Your task to perform on an android device: turn on wifi Image 0: 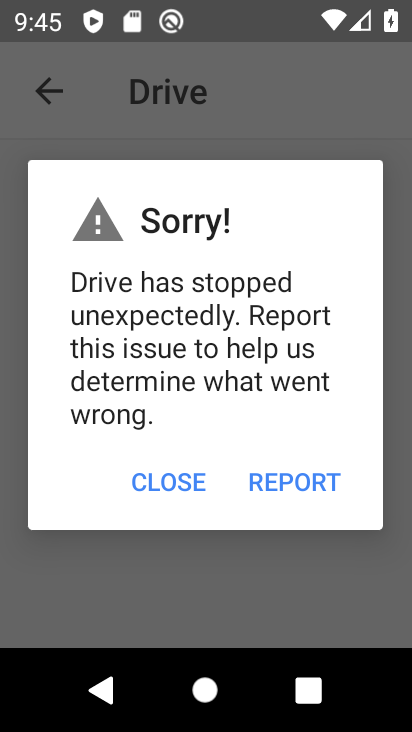
Step 0: press home button
Your task to perform on an android device: turn on wifi Image 1: 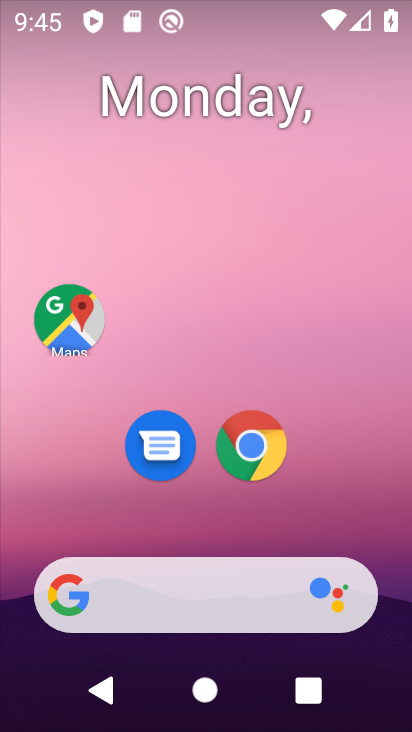
Step 1: drag from (119, 522) to (246, 56)
Your task to perform on an android device: turn on wifi Image 2: 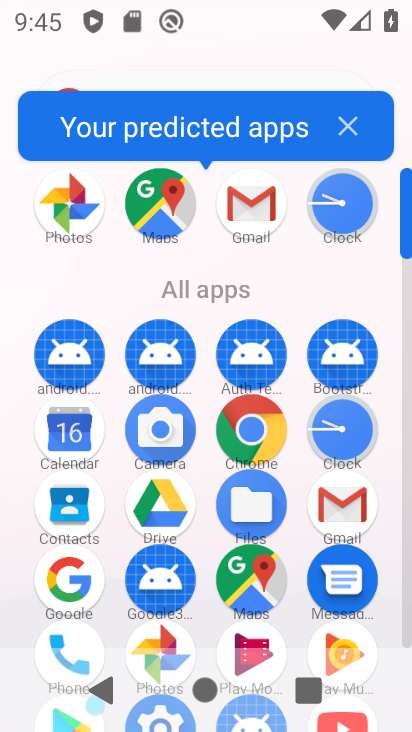
Step 2: drag from (171, 634) to (335, 190)
Your task to perform on an android device: turn on wifi Image 3: 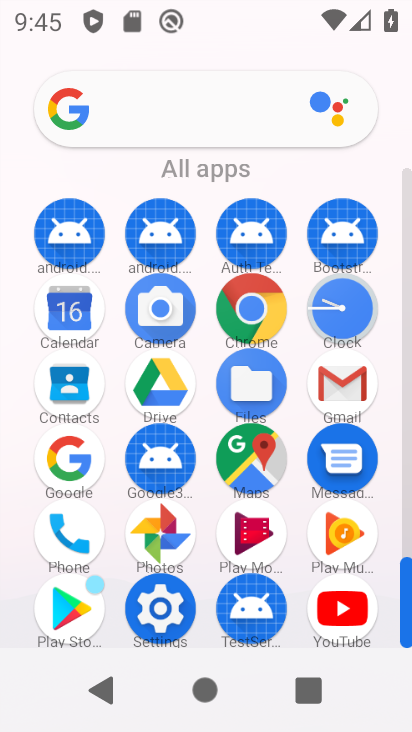
Step 3: click (155, 620)
Your task to perform on an android device: turn on wifi Image 4: 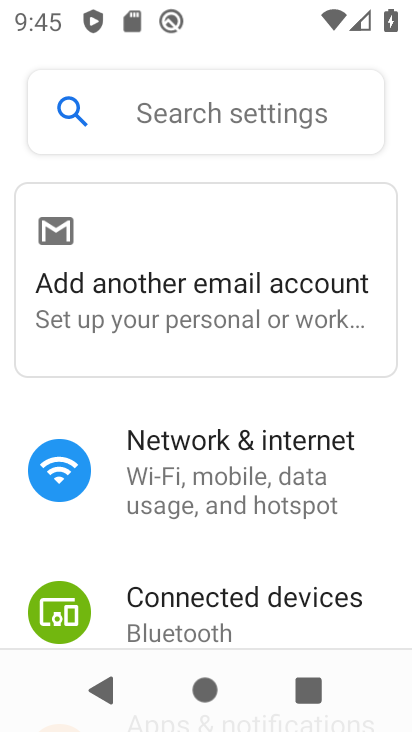
Step 4: click (222, 496)
Your task to perform on an android device: turn on wifi Image 5: 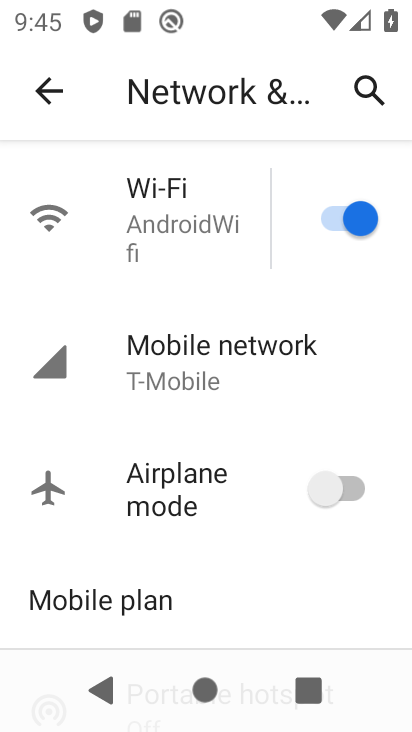
Step 5: task complete